Your task to perform on an android device: turn on bluetooth scan Image 0: 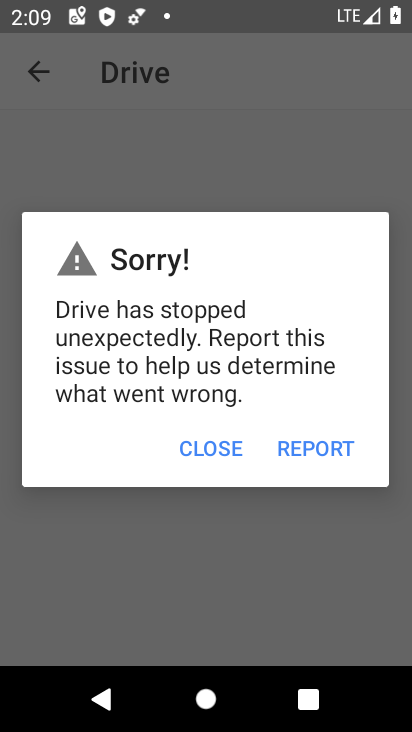
Step 0: press home button
Your task to perform on an android device: turn on bluetooth scan Image 1: 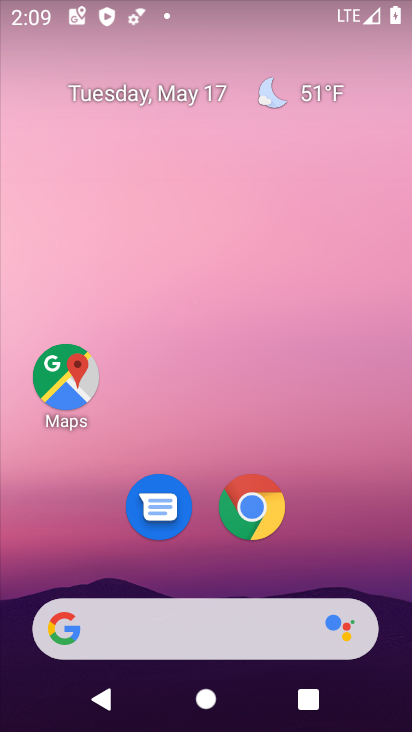
Step 1: drag from (327, 581) to (310, 42)
Your task to perform on an android device: turn on bluetooth scan Image 2: 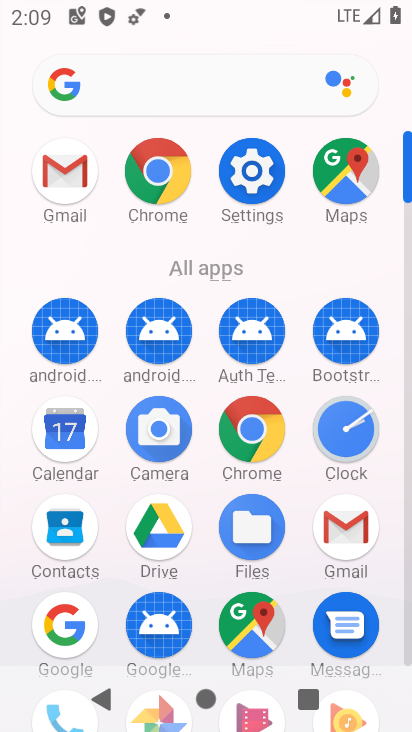
Step 2: click (244, 178)
Your task to perform on an android device: turn on bluetooth scan Image 3: 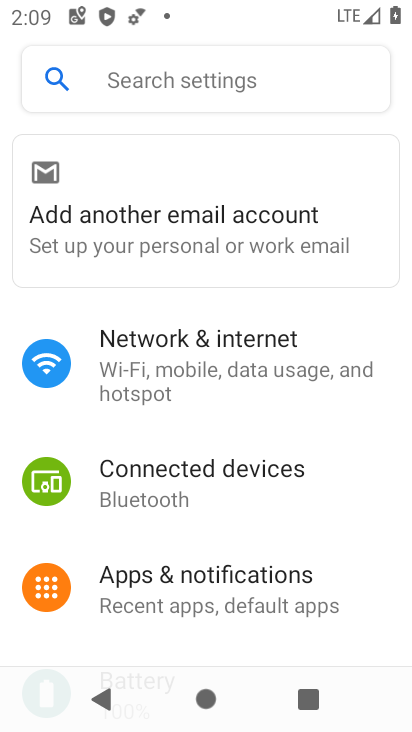
Step 3: drag from (188, 501) to (208, 272)
Your task to perform on an android device: turn on bluetooth scan Image 4: 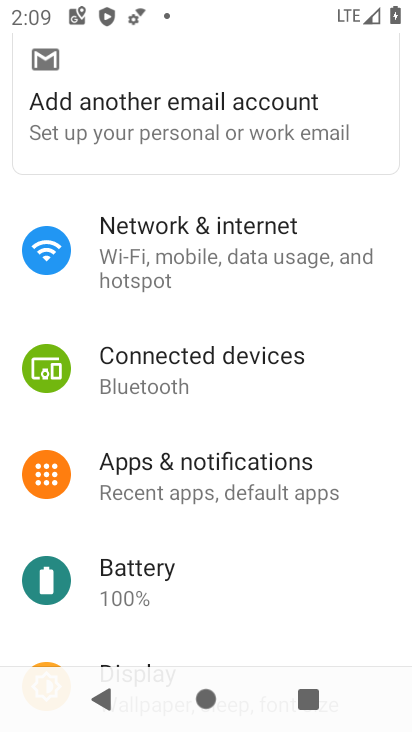
Step 4: drag from (224, 483) to (249, 318)
Your task to perform on an android device: turn on bluetooth scan Image 5: 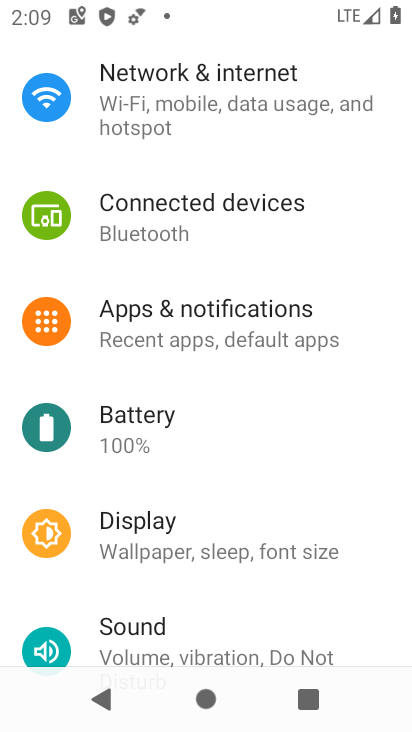
Step 5: drag from (240, 554) to (234, 286)
Your task to perform on an android device: turn on bluetooth scan Image 6: 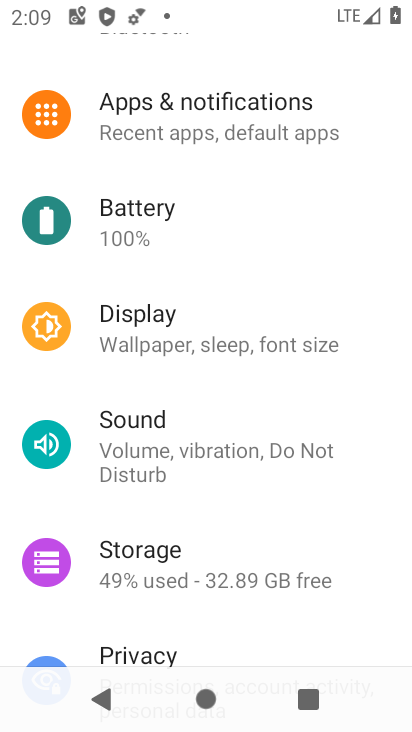
Step 6: drag from (216, 549) to (225, 424)
Your task to perform on an android device: turn on bluetooth scan Image 7: 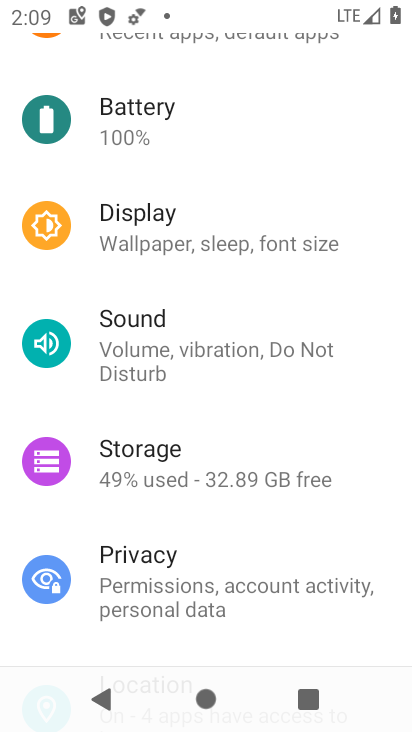
Step 7: drag from (215, 564) to (244, 430)
Your task to perform on an android device: turn on bluetooth scan Image 8: 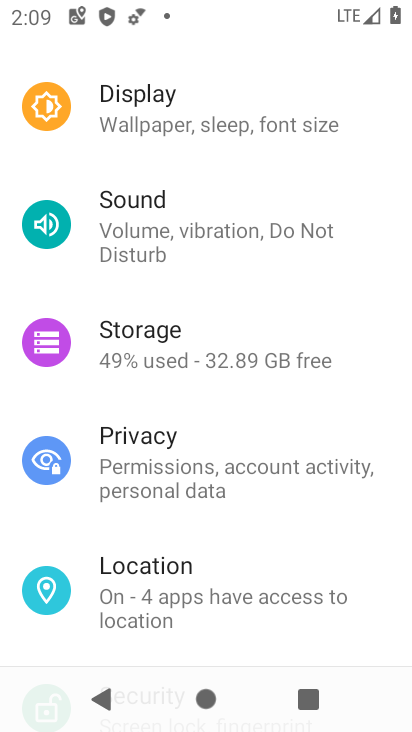
Step 8: click (216, 592)
Your task to perform on an android device: turn on bluetooth scan Image 9: 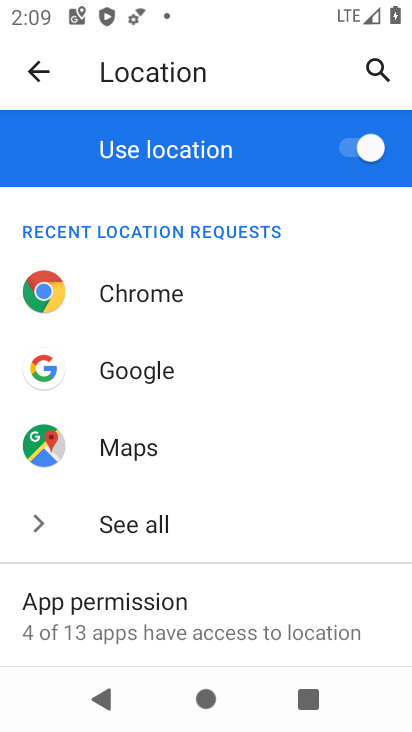
Step 9: drag from (208, 581) to (270, 352)
Your task to perform on an android device: turn on bluetooth scan Image 10: 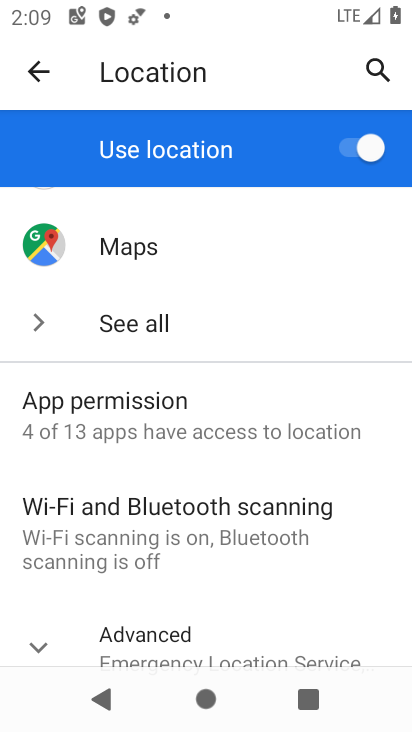
Step 10: click (192, 533)
Your task to perform on an android device: turn on bluetooth scan Image 11: 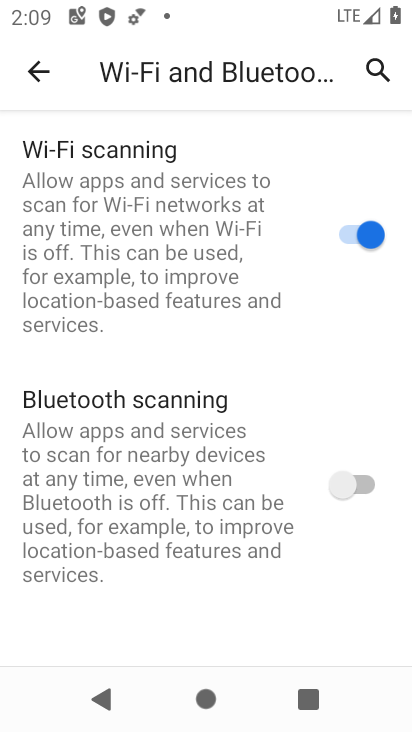
Step 11: click (356, 488)
Your task to perform on an android device: turn on bluetooth scan Image 12: 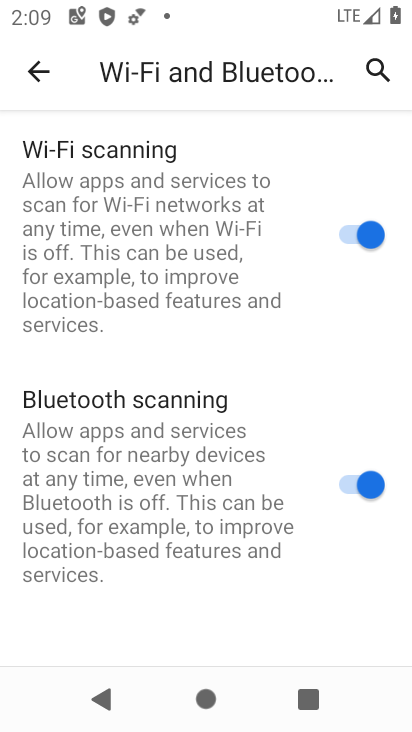
Step 12: task complete